Your task to perform on an android device: turn off priority inbox in the gmail app Image 0: 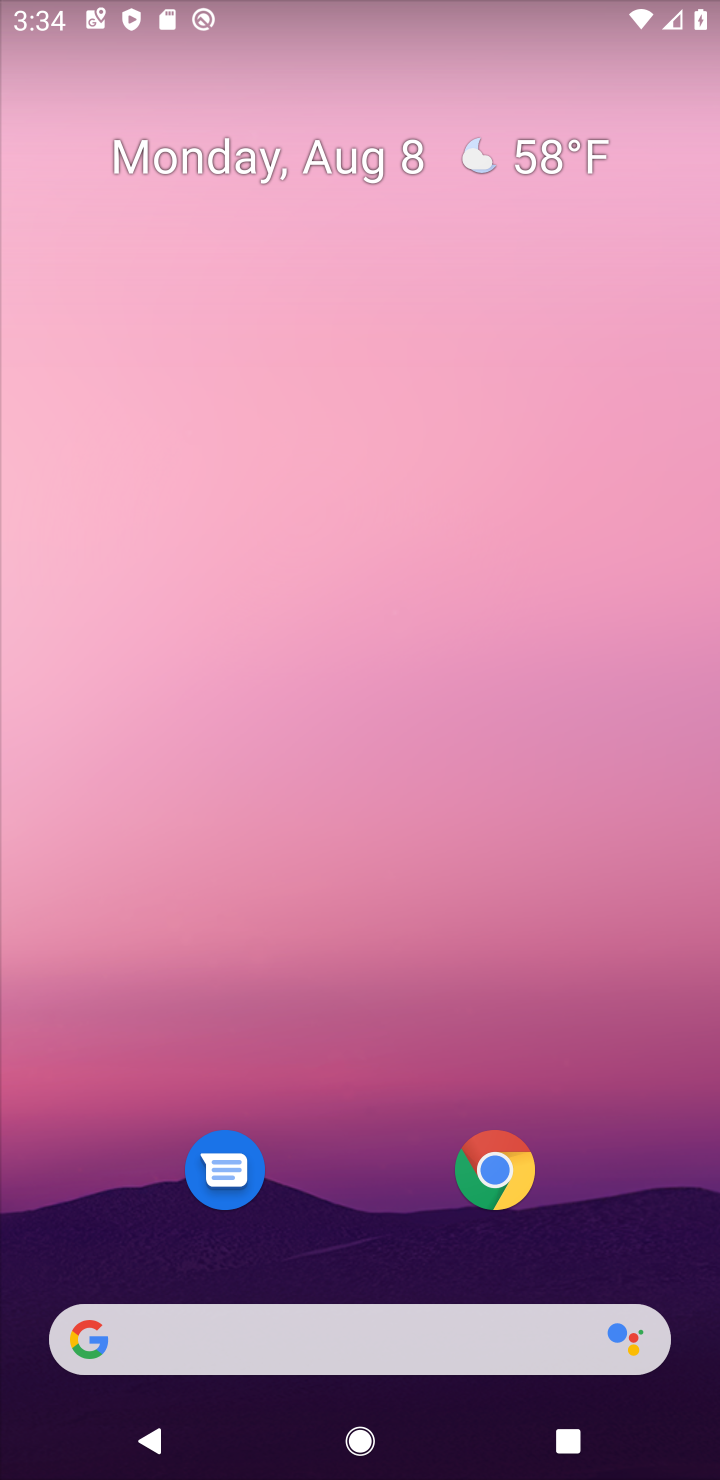
Step 0: drag from (353, 1172) to (353, 297)
Your task to perform on an android device: turn off priority inbox in the gmail app Image 1: 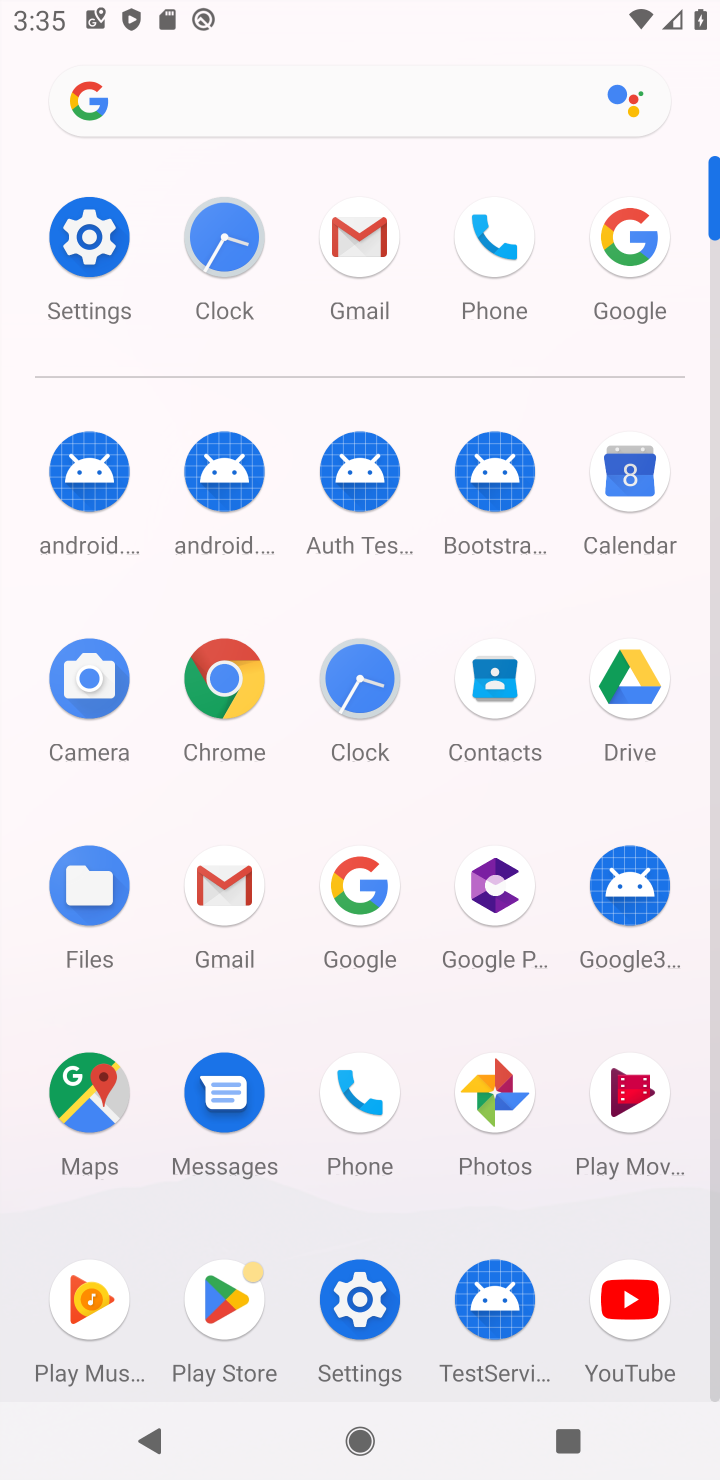
Step 1: click (346, 291)
Your task to perform on an android device: turn off priority inbox in the gmail app Image 2: 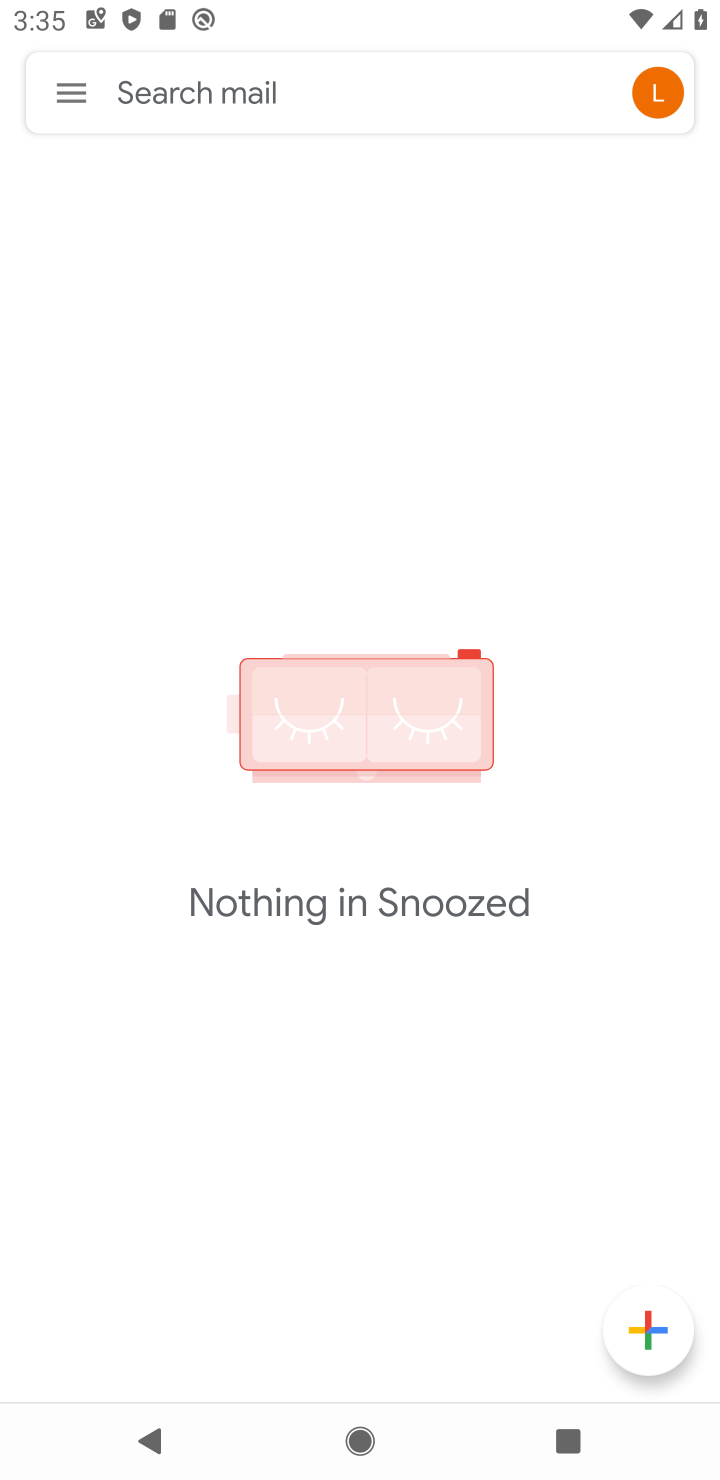
Step 2: click (51, 104)
Your task to perform on an android device: turn off priority inbox in the gmail app Image 3: 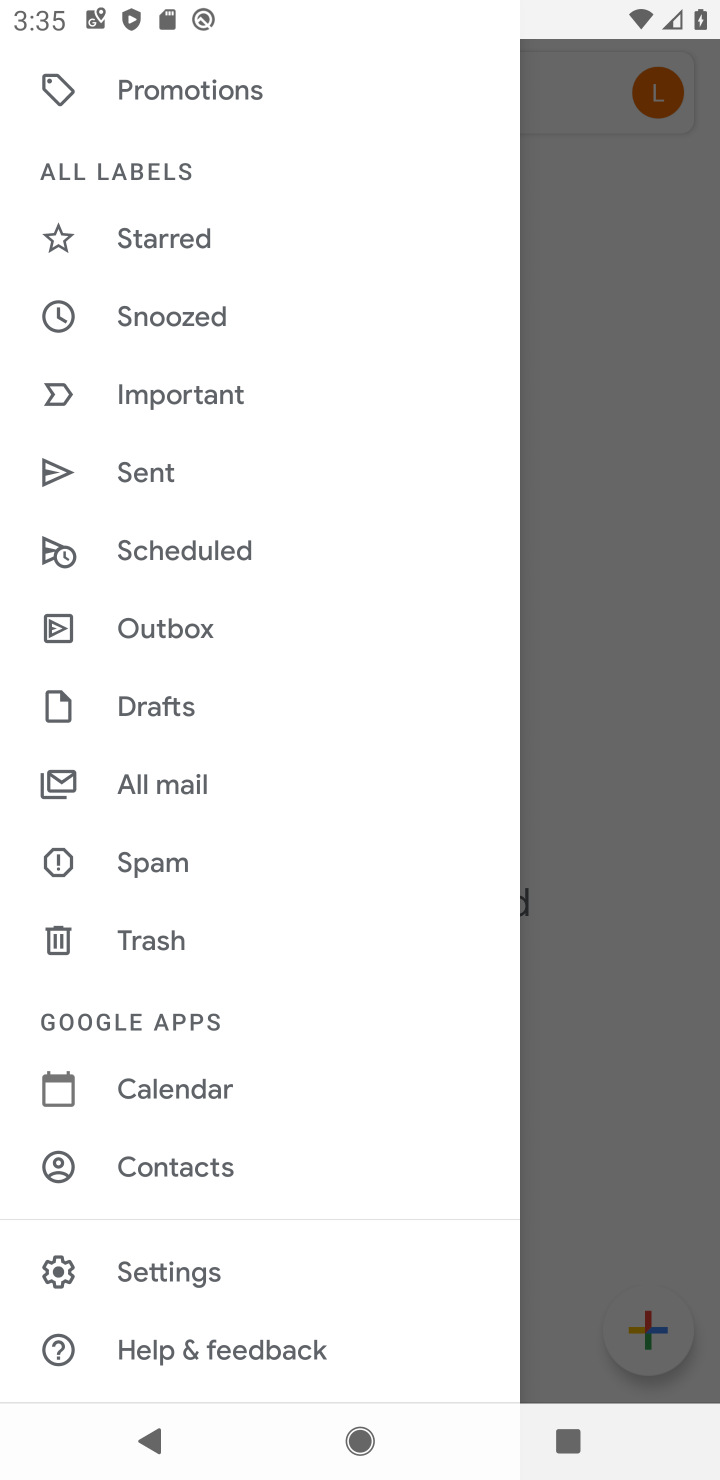
Step 3: click (255, 1277)
Your task to perform on an android device: turn off priority inbox in the gmail app Image 4: 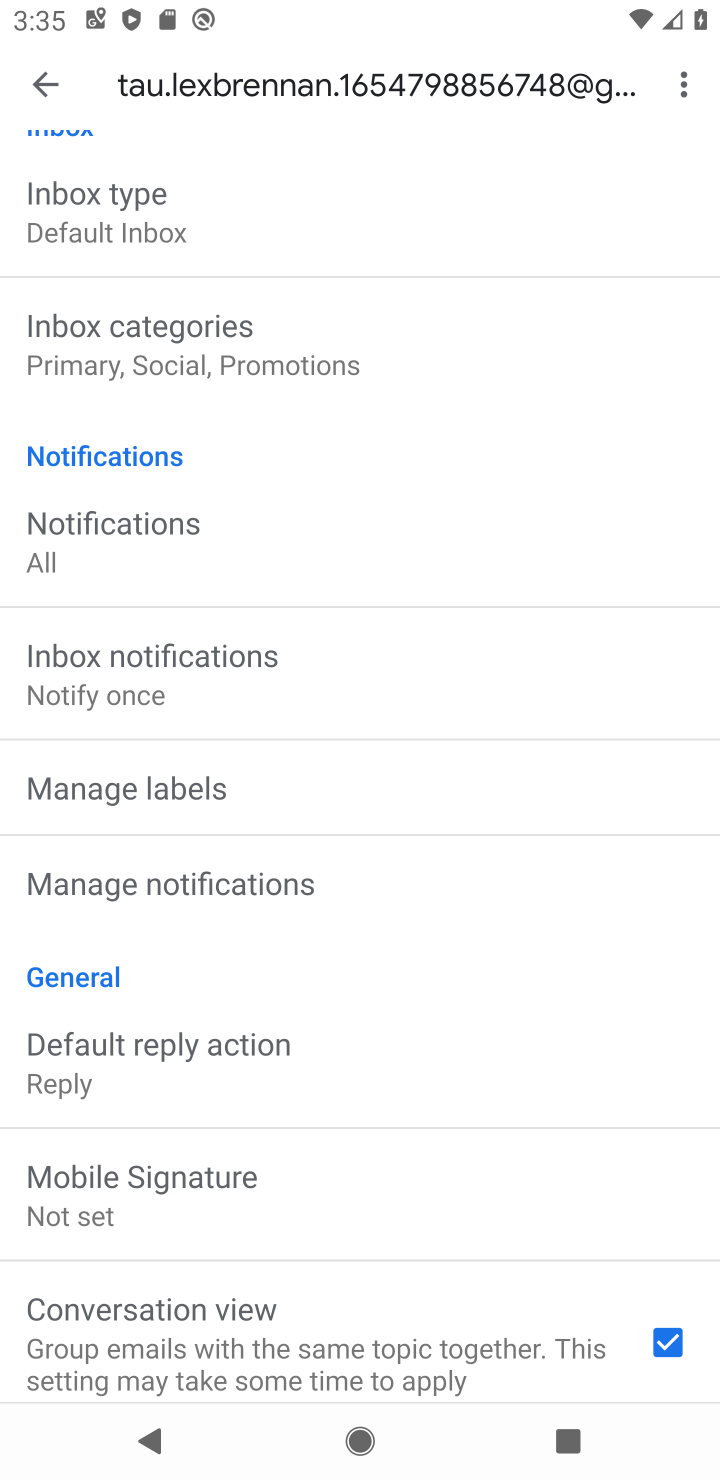
Step 4: click (204, 263)
Your task to perform on an android device: turn off priority inbox in the gmail app Image 5: 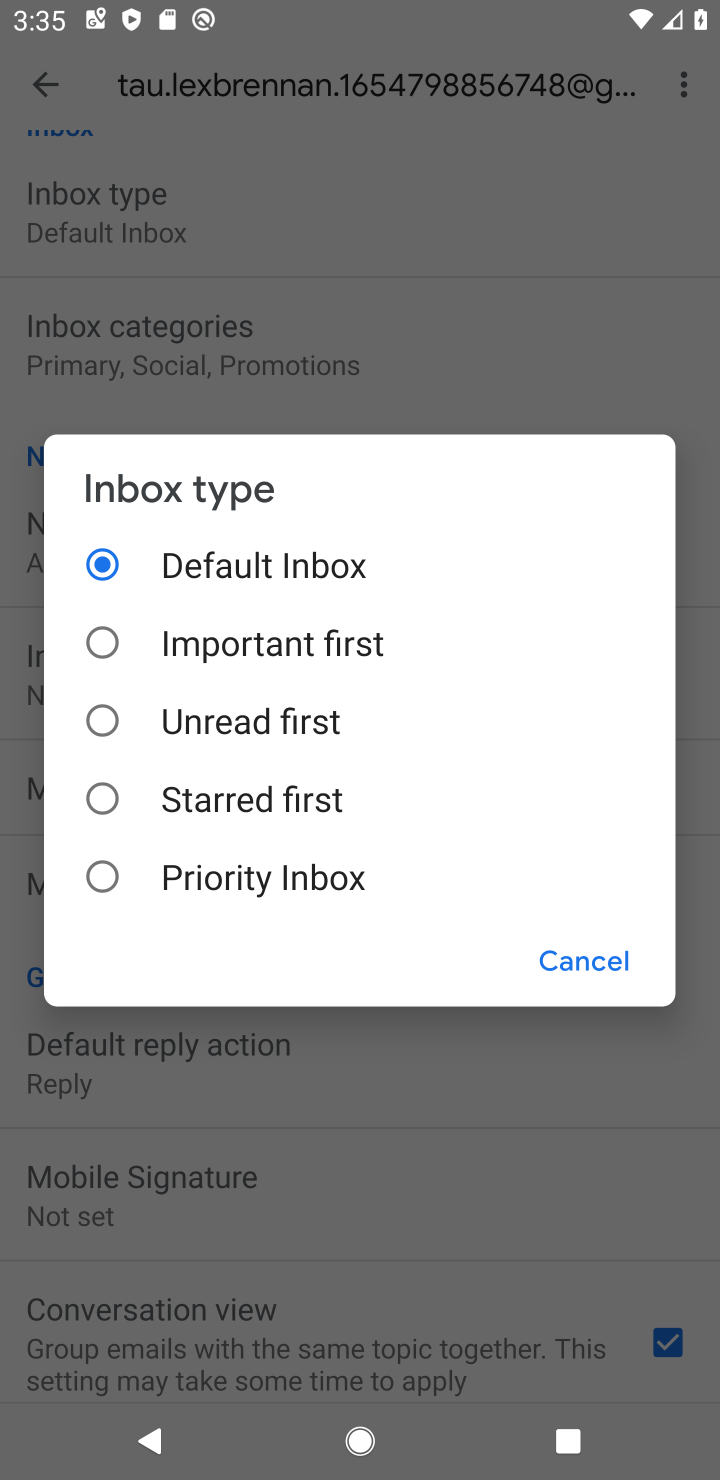
Step 5: task complete